Your task to perform on an android device: Search for the best burger restaurants on Maps Image 0: 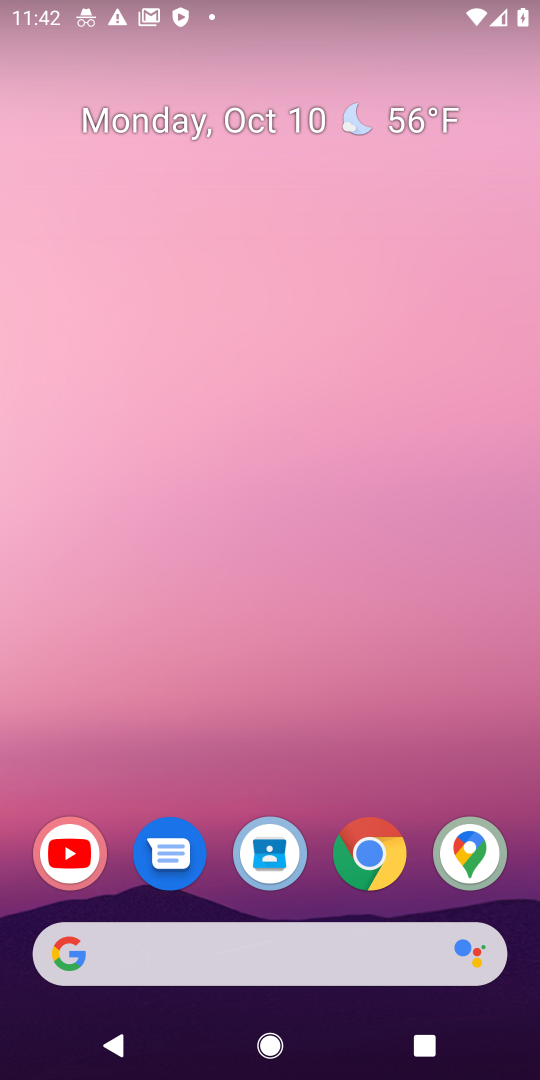
Step 0: press home button
Your task to perform on an android device: Search for the best burger restaurants on Maps Image 1: 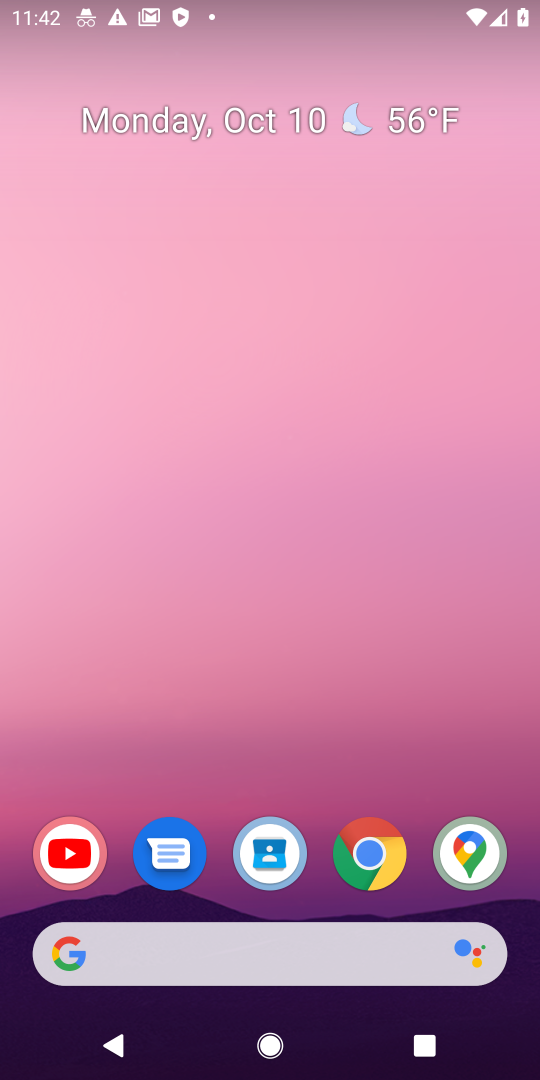
Step 1: drag from (458, 681) to (491, 79)
Your task to perform on an android device: Search for the best burger restaurants on Maps Image 2: 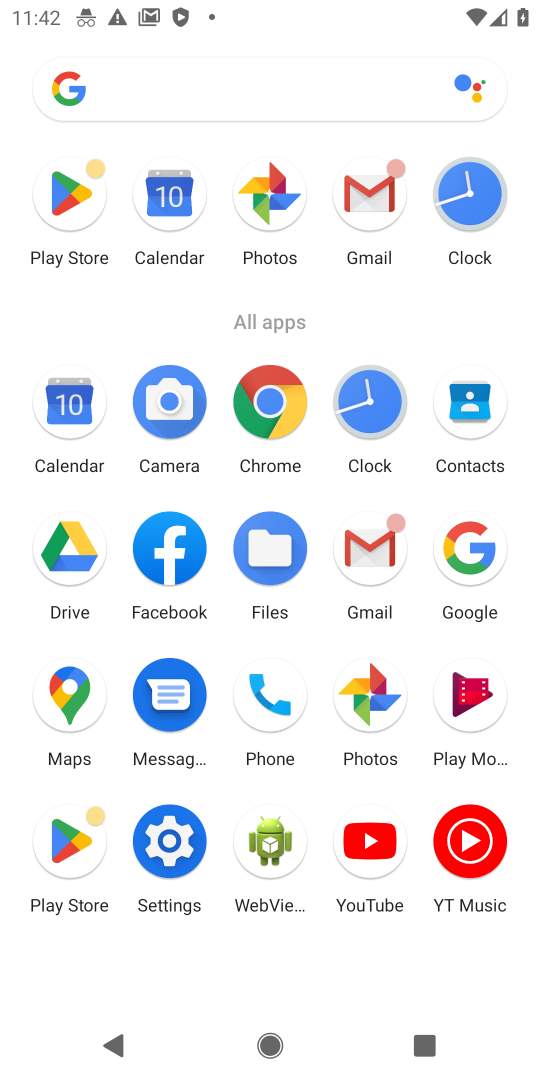
Step 2: click (67, 698)
Your task to perform on an android device: Search for the best burger restaurants on Maps Image 3: 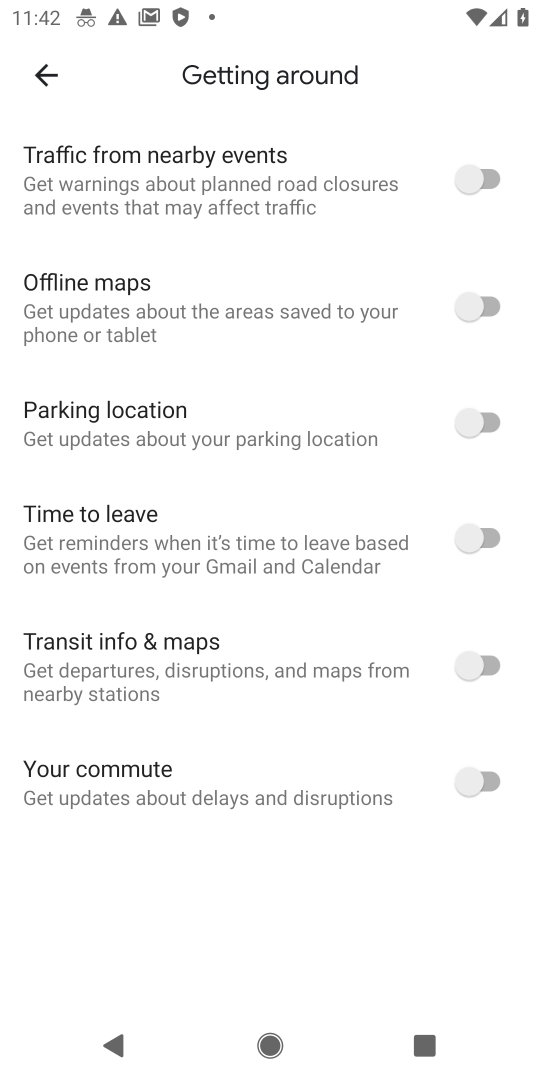
Step 3: press back button
Your task to perform on an android device: Search for the best burger restaurants on Maps Image 4: 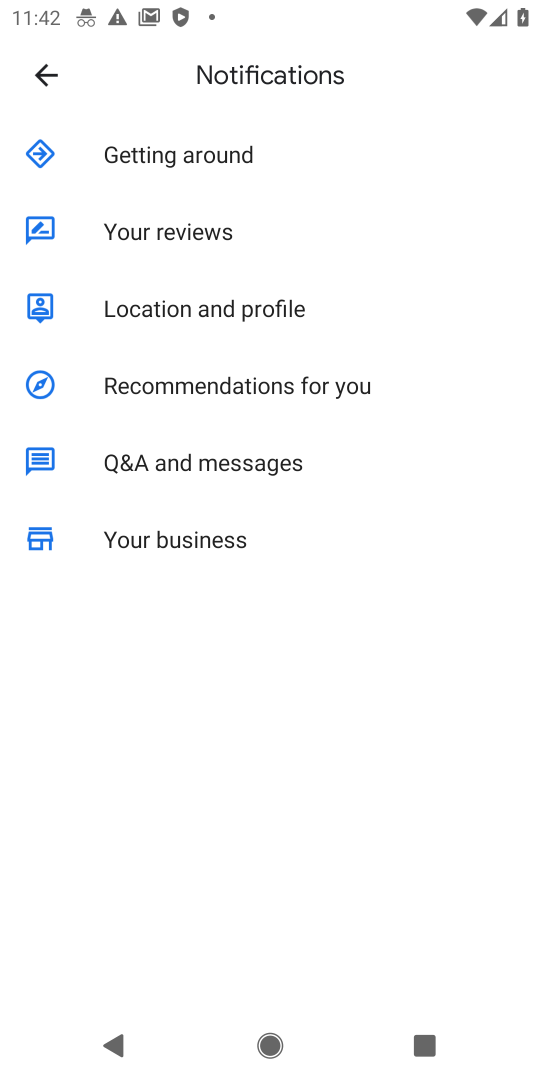
Step 4: press back button
Your task to perform on an android device: Search for the best burger restaurants on Maps Image 5: 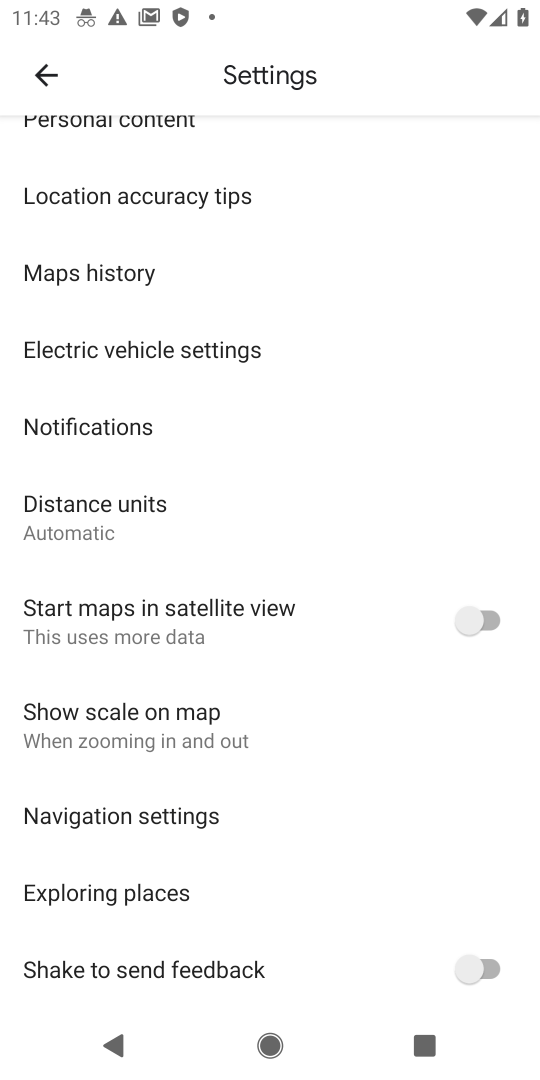
Step 5: press back button
Your task to perform on an android device: Search for the best burger restaurants on Maps Image 6: 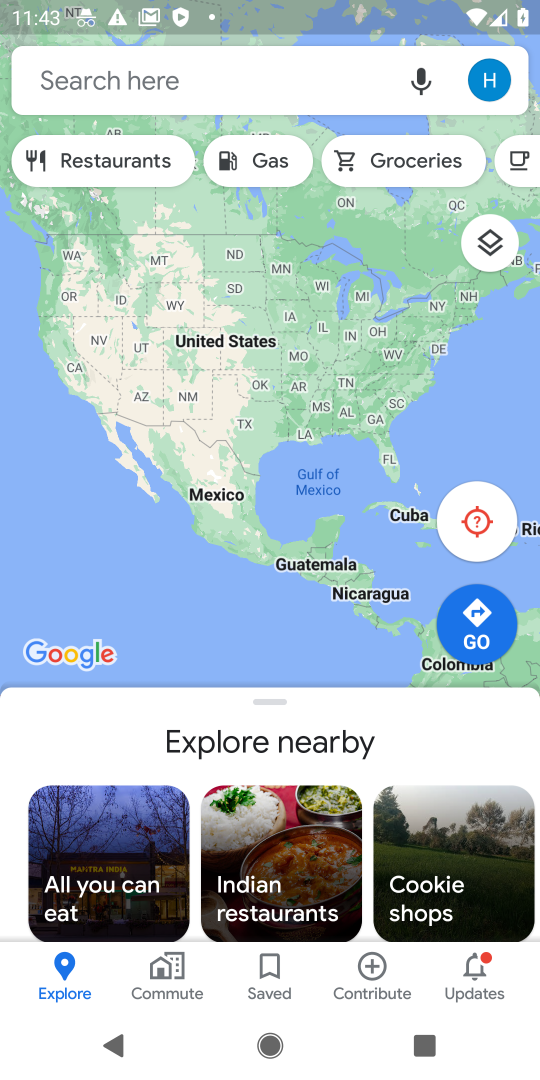
Step 6: click (201, 87)
Your task to perform on an android device: Search for the best burger restaurants on Maps Image 7: 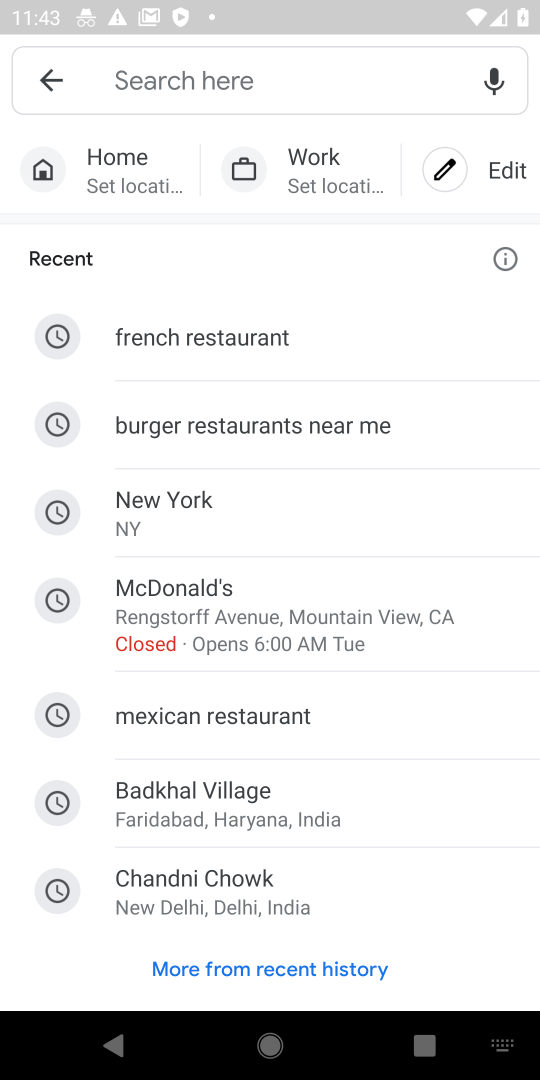
Step 7: type " best burger restaurants "
Your task to perform on an android device: Search for the best burger restaurants on Maps Image 8: 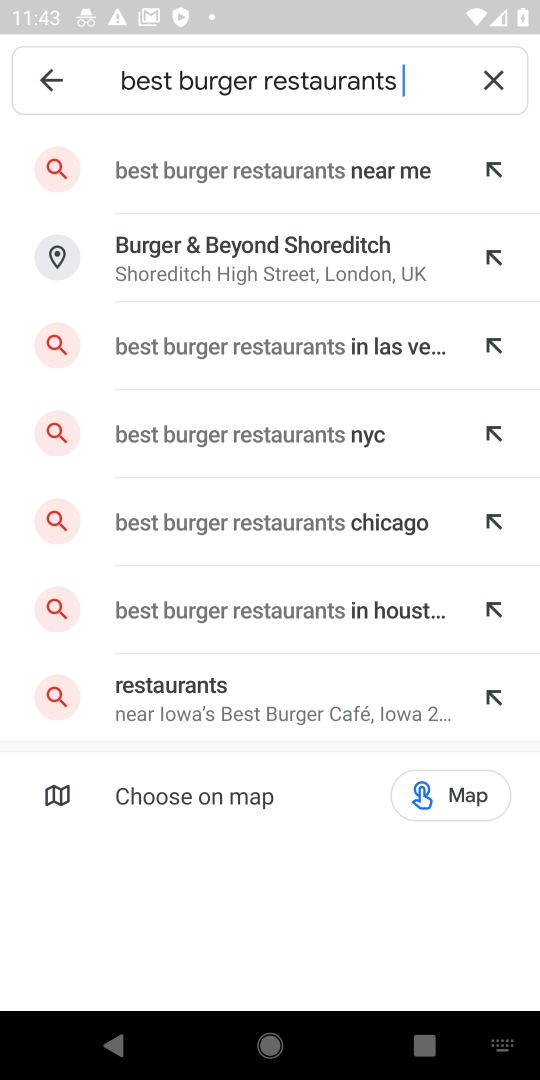
Step 8: press enter
Your task to perform on an android device: Search for the best burger restaurants on Maps Image 9: 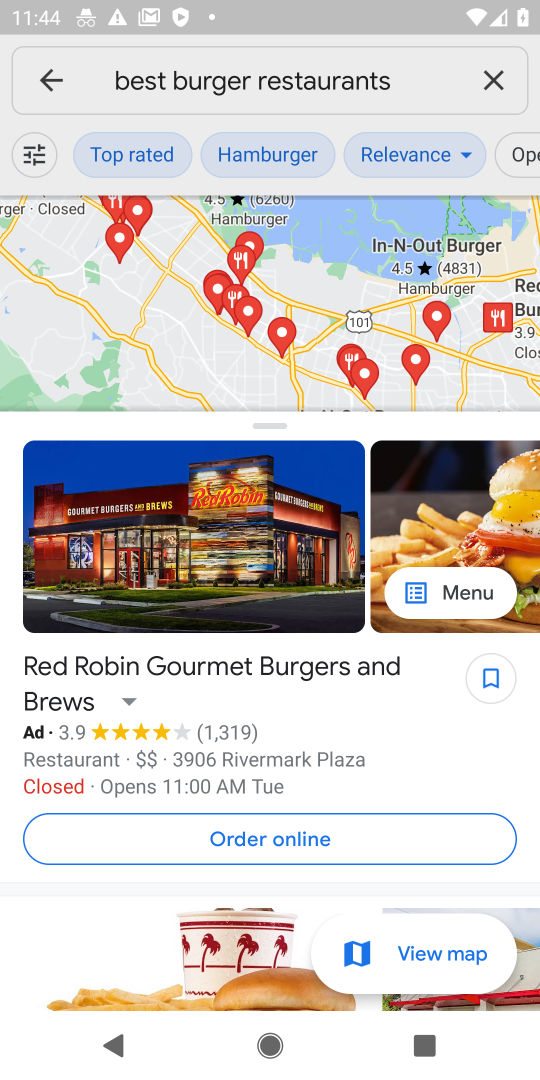
Step 9: task complete